Your task to perform on an android device: turn on showing notifications on the lock screen Image 0: 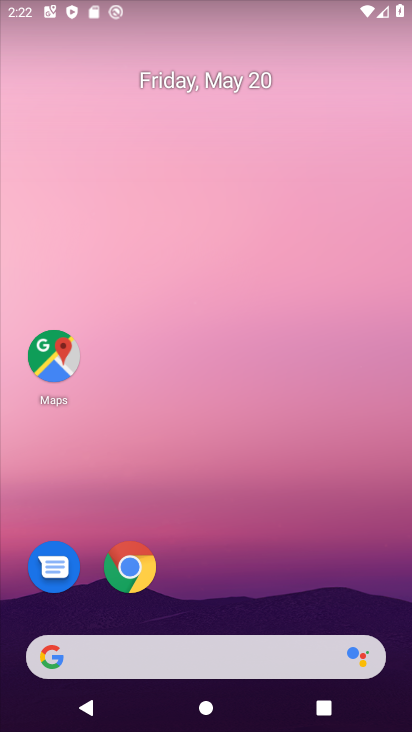
Step 0: drag from (257, 595) to (206, 271)
Your task to perform on an android device: turn on showing notifications on the lock screen Image 1: 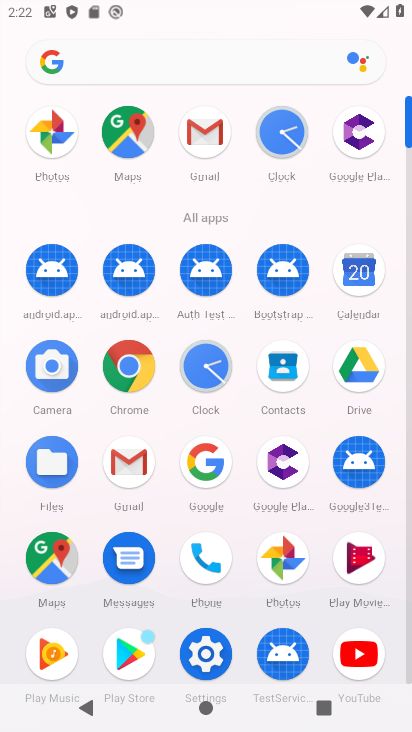
Step 1: click (214, 642)
Your task to perform on an android device: turn on showing notifications on the lock screen Image 2: 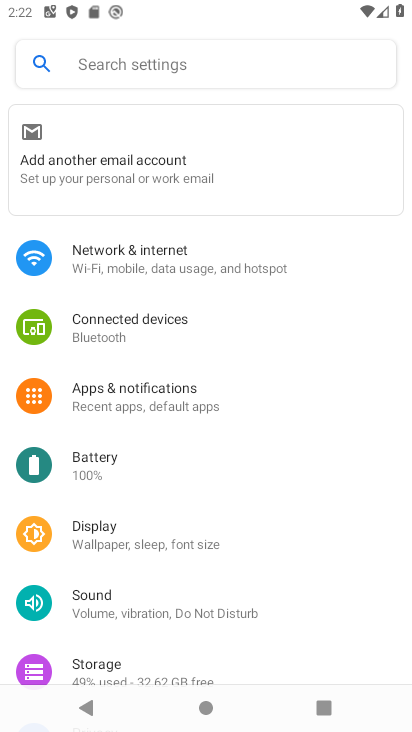
Step 2: click (230, 406)
Your task to perform on an android device: turn on showing notifications on the lock screen Image 3: 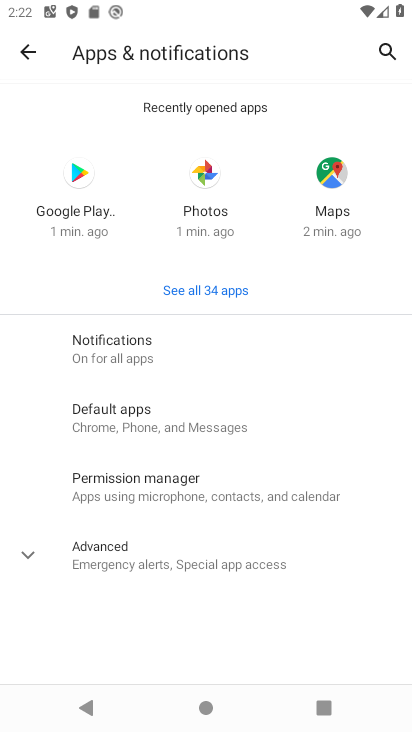
Step 3: click (214, 363)
Your task to perform on an android device: turn on showing notifications on the lock screen Image 4: 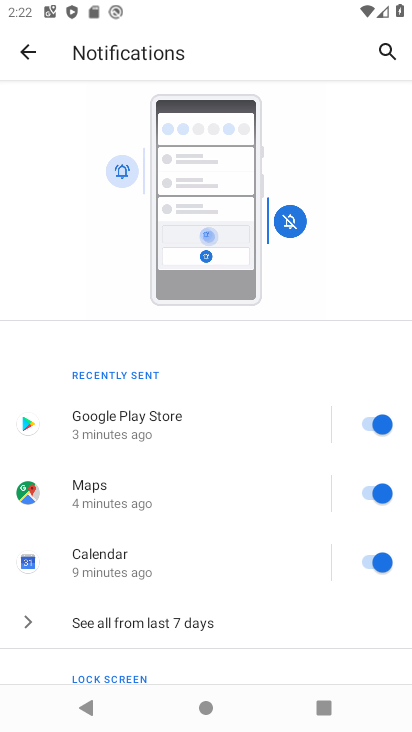
Step 4: drag from (247, 642) to (220, 306)
Your task to perform on an android device: turn on showing notifications on the lock screen Image 5: 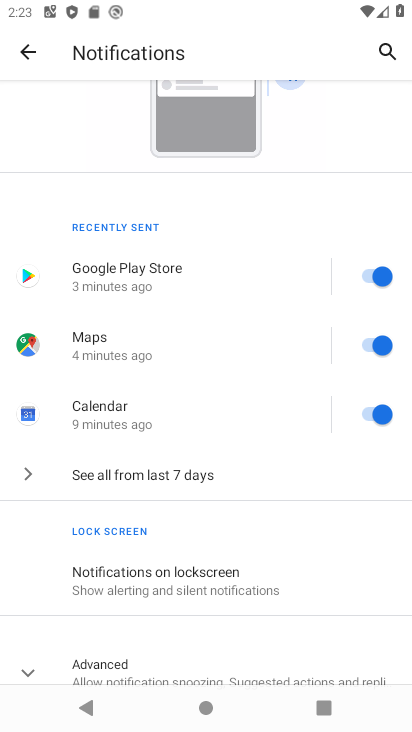
Step 5: drag from (253, 554) to (209, 265)
Your task to perform on an android device: turn on showing notifications on the lock screen Image 6: 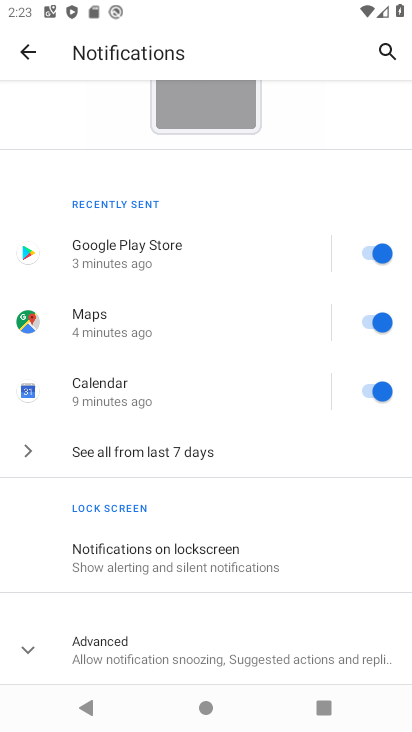
Step 6: click (238, 567)
Your task to perform on an android device: turn on showing notifications on the lock screen Image 7: 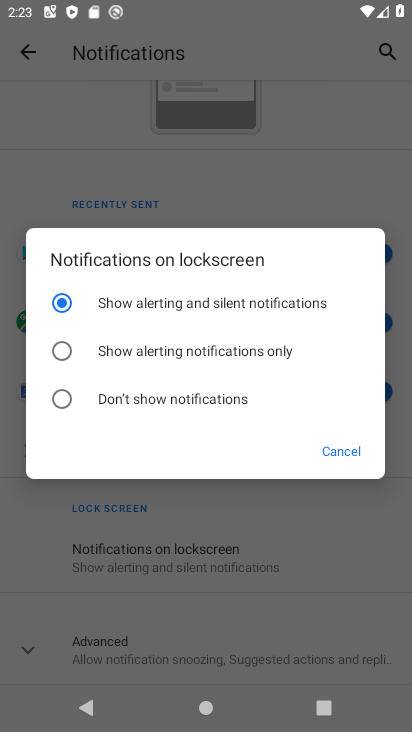
Step 7: task complete